Your task to perform on an android device: refresh tabs in the chrome app Image 0: 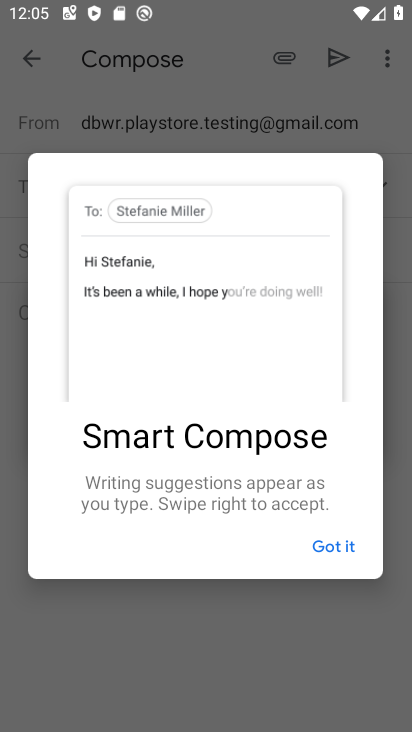
Step 0: press back button
Your task to perform on an android device: refresh tabs in the chrome app Image 1: 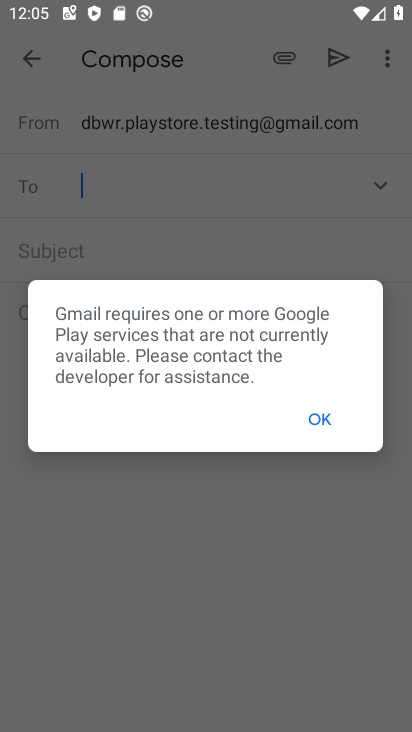
Step 1: press home button
Your task to perform on an android device: refresh tabs in the chrome app Image 2: 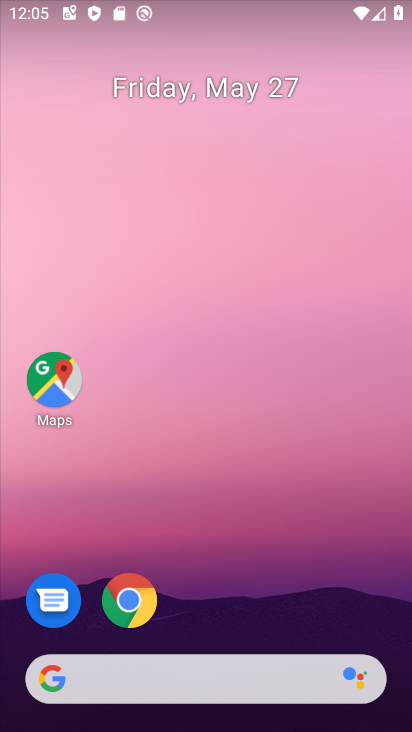
Step 2: drag from (237, 589) to (229, 66)
Your task to perform on an android device: refresh tabs in the chrome app Image 3: 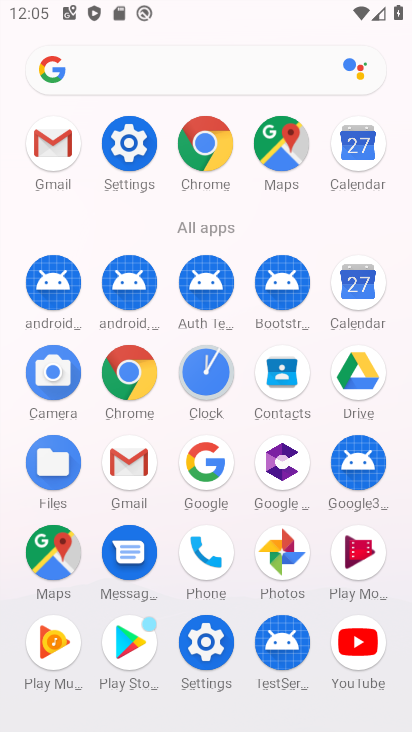
Step 3: drag from (11, 620) to (19, 248)
Your task to perform on an android device: refresh tabs in the chrome app Image 4: 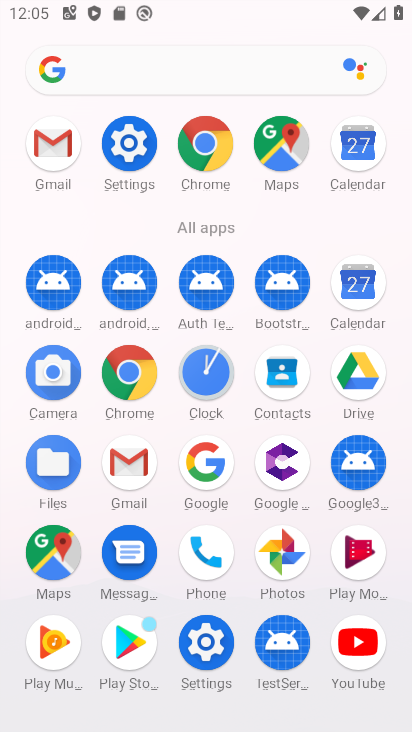
Step 4: click (125, 366)
Your task to perform on an android device: refresh tabs in the chrome app Image 5: 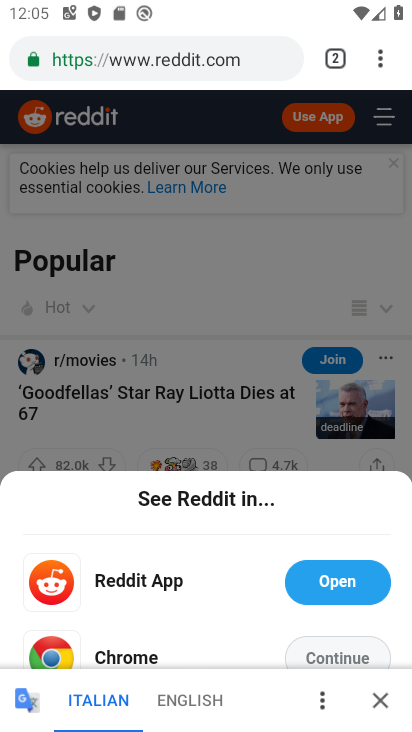
Step 5: click (380, 58)
Your task to perform on an android device: refresh tabs in the chrome app Image 6: 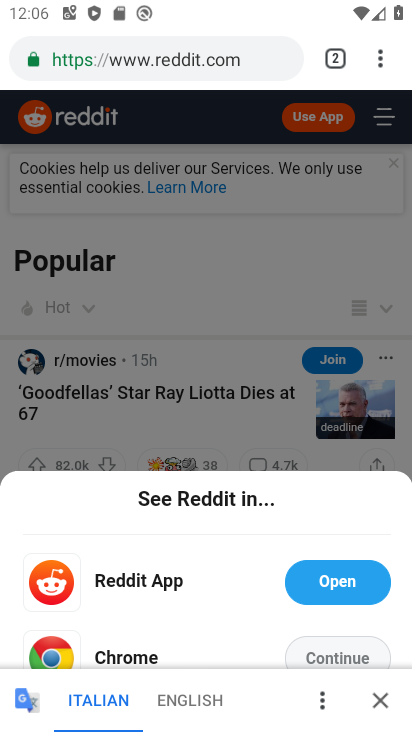
Step 6: task complete